Your task to perform on an android device: Go to eBay Image 0: 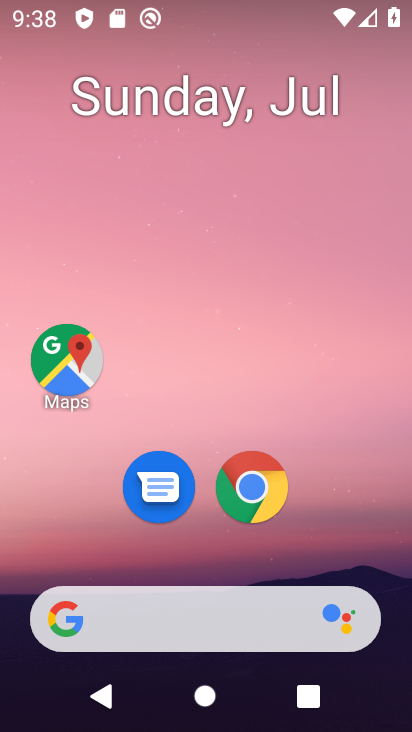
Step 0: click (244, 480)
Your task to perform on an android device: Go to eBay Image 1: 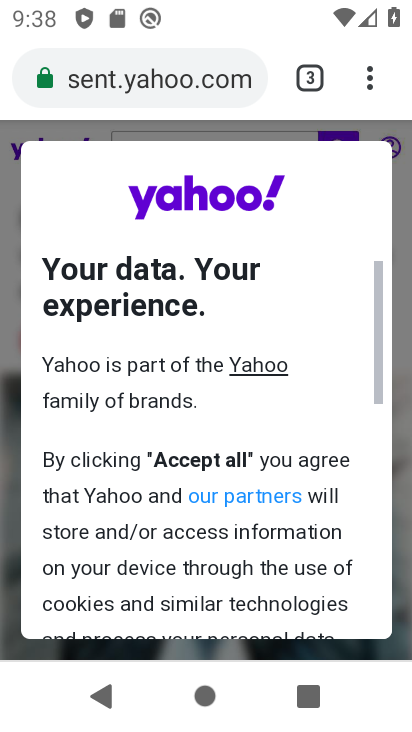
Step 1: click (310, 79)
Your task to perform on an android device: Go to eBay Image 2: 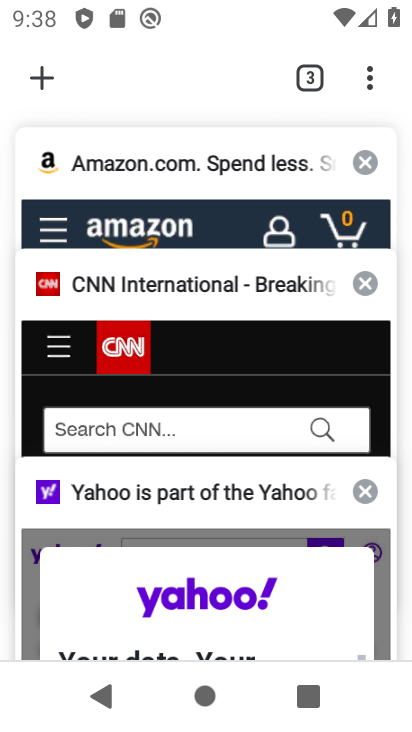
Step 2: click (40, 76)
Your task to perform on an android device: Go to eBay Image 3: 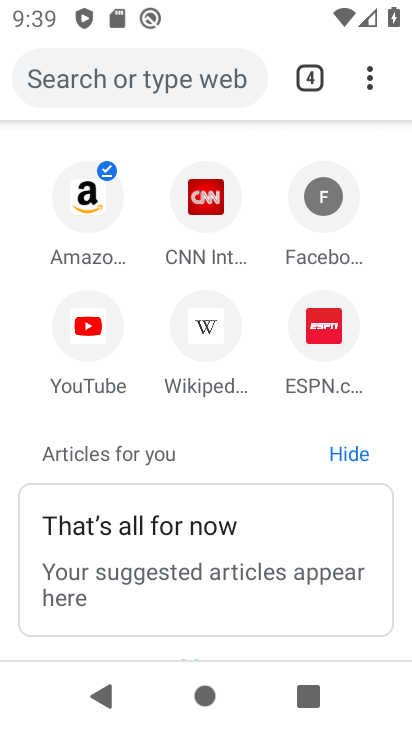
Step 3: click (122, 76)
Your task to perform on an android device: Go to eBay Image 4: 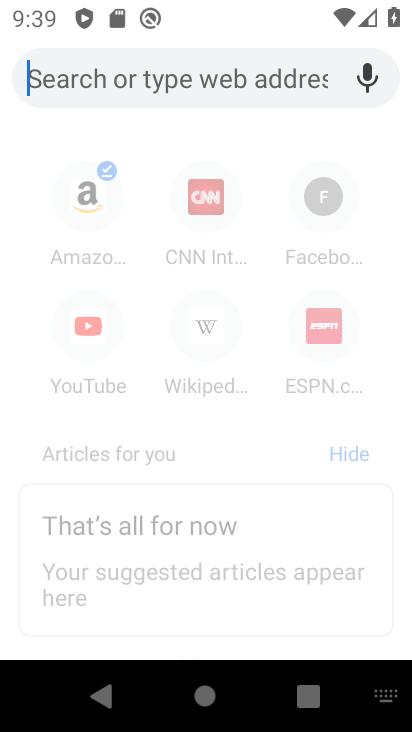
Step 4: type "ebay"
Your task to perform on an android device: Go to eBay Image 5: 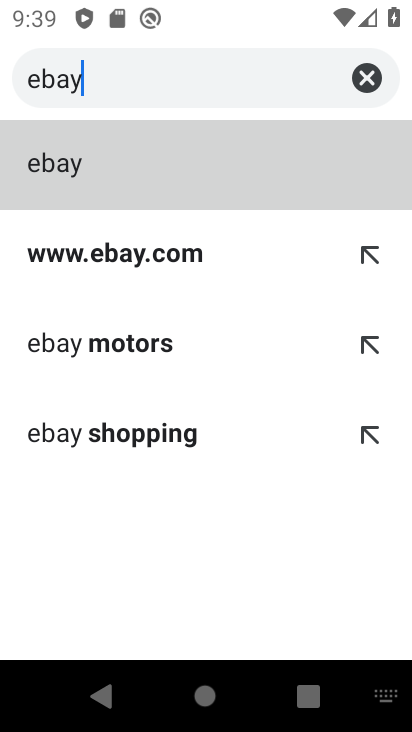
Step 5: click (63, 166)
Your task to perform on an android device: Go to eBay Image 6: 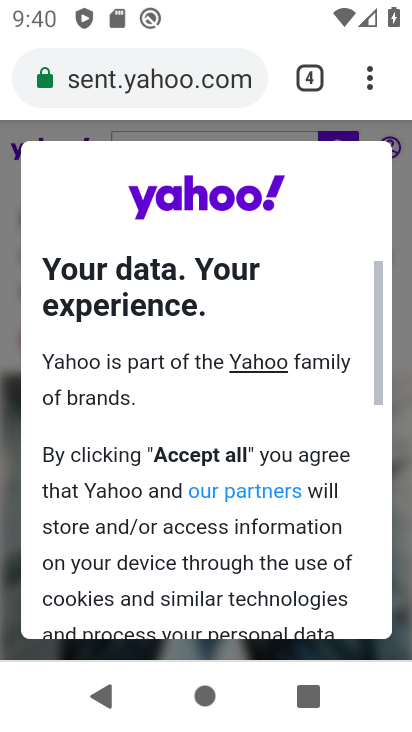
Step 6: click (309, 80)
Your task to perform on an android device: Go to eBay Image 7: 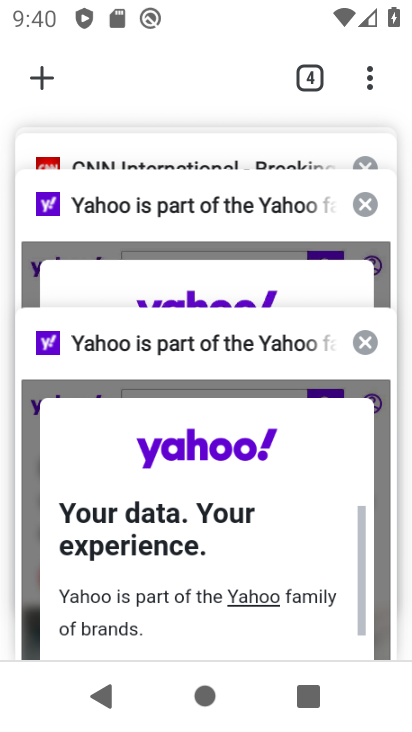
Step 7: click (47, 70)
Your task to perform on an android device: Go to eBay Image 8: 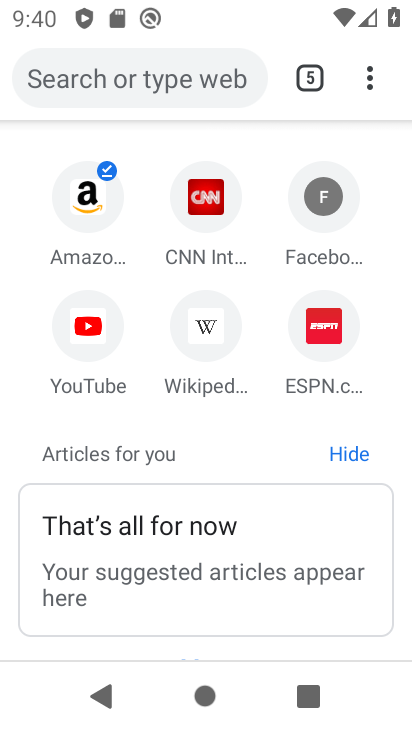
Step 8: click (48, 94)
Your task to perform on an android device: Go to eBay Image 9: 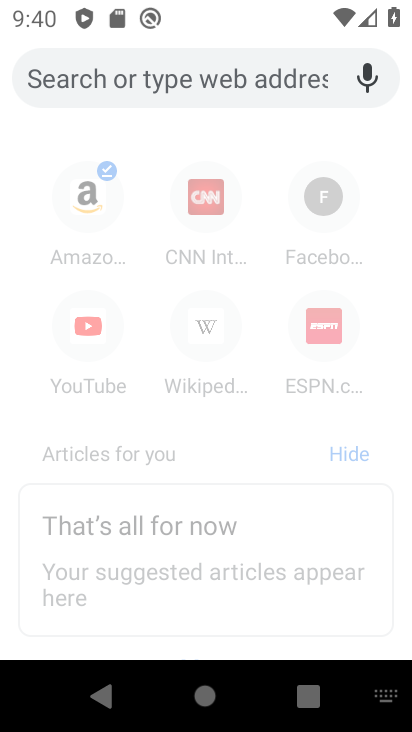
Step 9: type "ebay"
Your task to perform on an android device: Go to eBay Image 10: 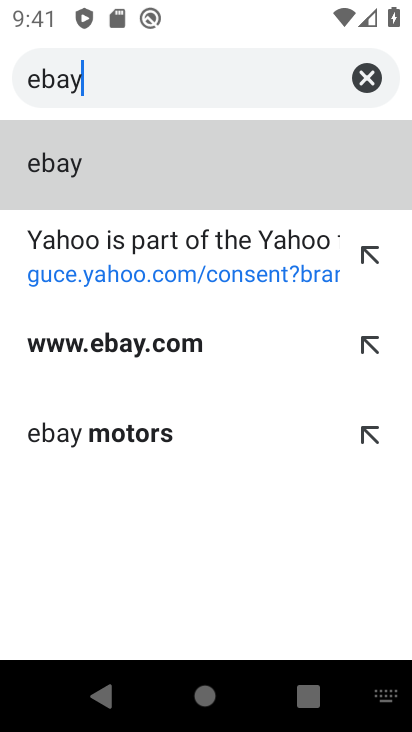
Step 10: click (66, 341)
Your task to perform on an android device: Go to eBay Image 11: 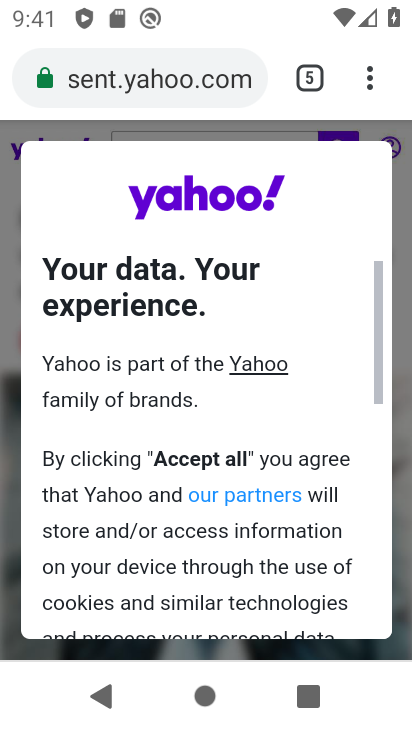
Step 11: drag from (174, 579) to (240, 50)
Your task to perform on an android device: Go to eBay Image 12: 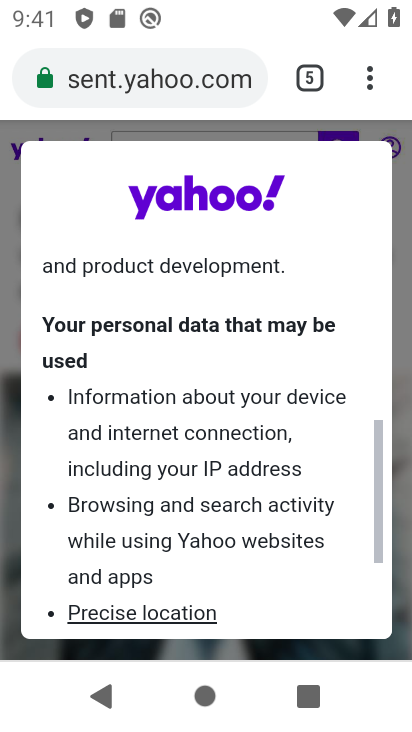
Step 12: drag from (194, 567) to (245, 2)
Your task to perform on an android device: Go to eBay Image 13: 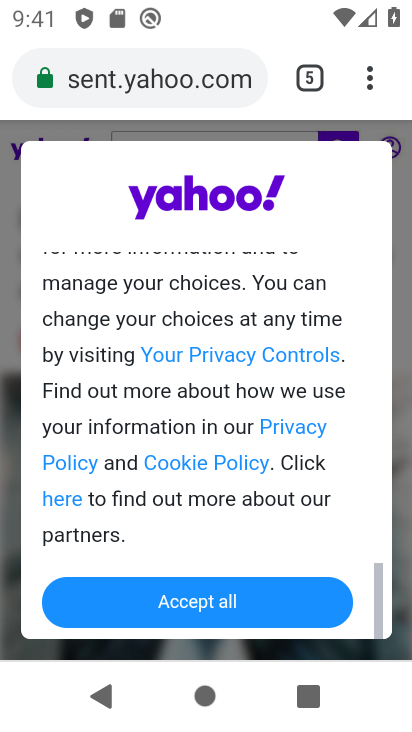
Step 13: click (169, 588)
Your task to perform on an android device: Go to eBay Image 14: 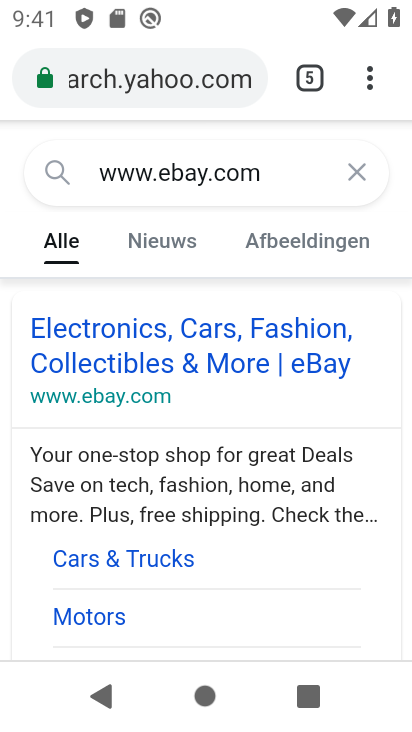
Step 14: task complete